Your task to perform on an android device: check data usage Image 0: 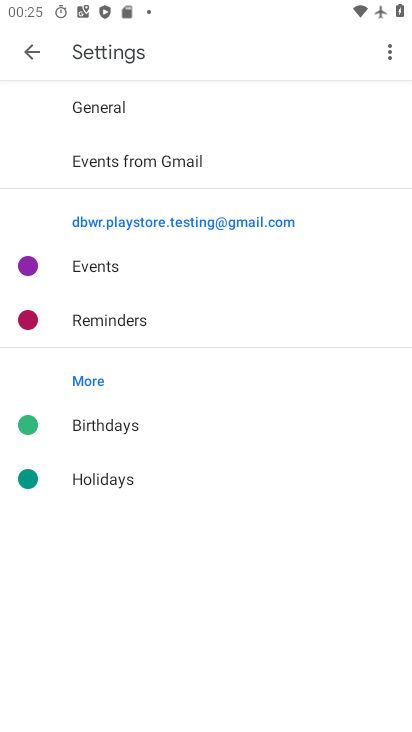
Step 0: press home button
Your task to perform on an android device: check data usage Image 1: 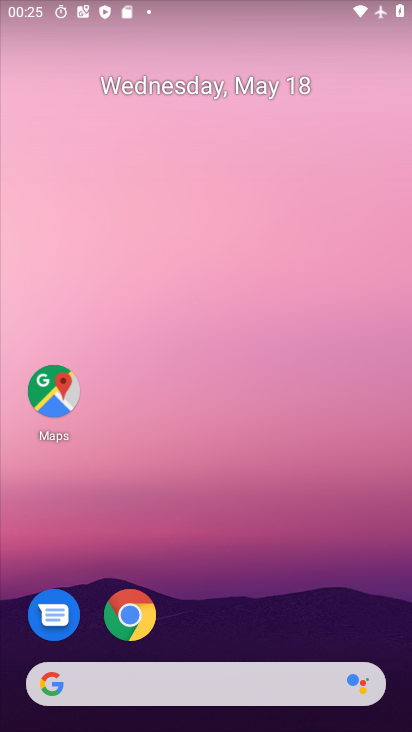
Step 1: drag from (217, 582) to (202, 69)
Your task to perform on an android device: check data usage Image 2: 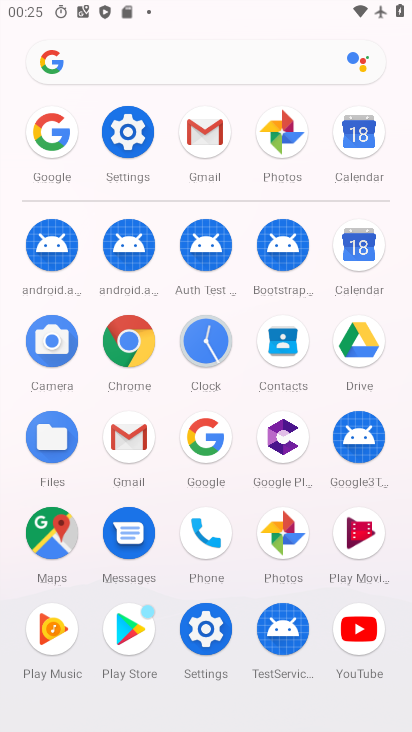
Step 2: click (136, 132)
Your task to perform on an android device: check data usage Image 3: 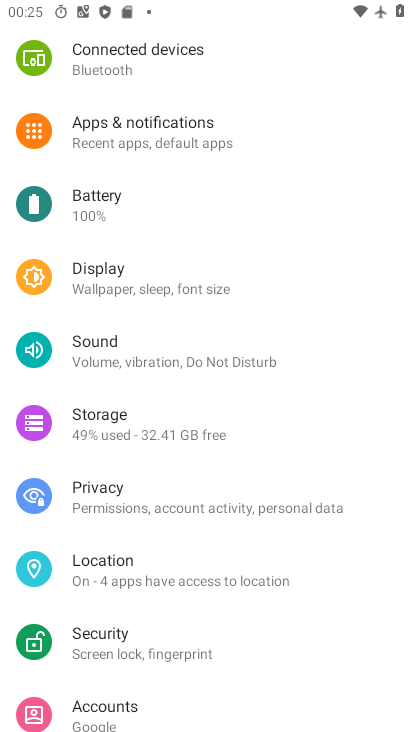
Step 3: drag from (158, 327) to (142, 518)
Your task to perform on an android device: check data usage Image 4: 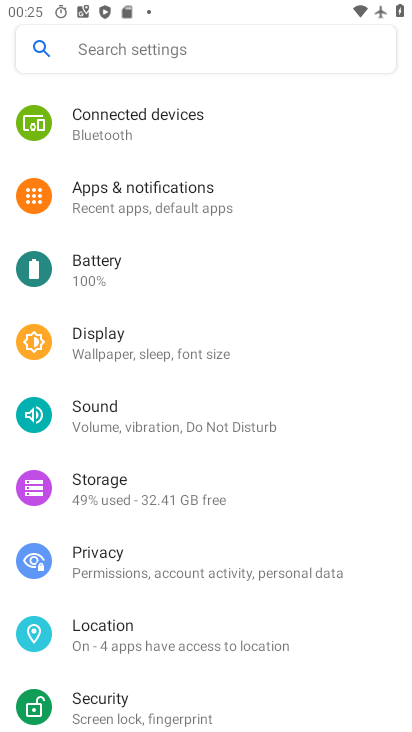
Step 4: drag from (227, 215) to (232, 578)
Your task to perform on an android device: check data usage Image 5: 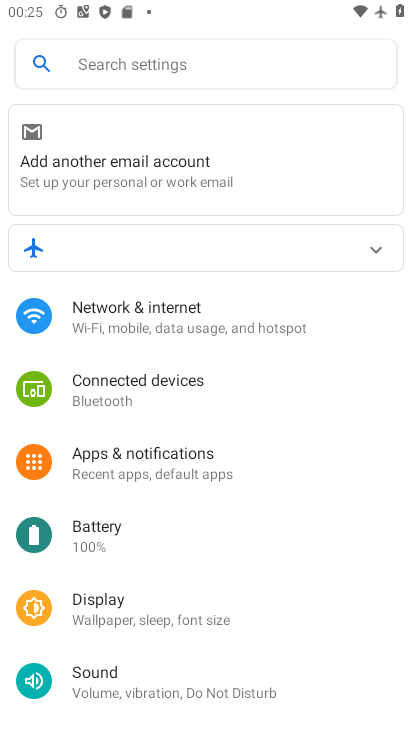
Step 5: click (185, 334)
Your task to perform on an android device: check data usage Image 6: 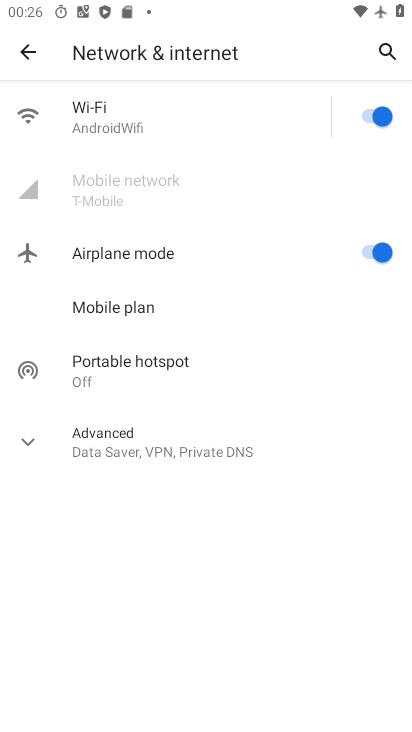
Step 6: click (176, 202)
Your task to perform on an android device: check data usage Image 7: 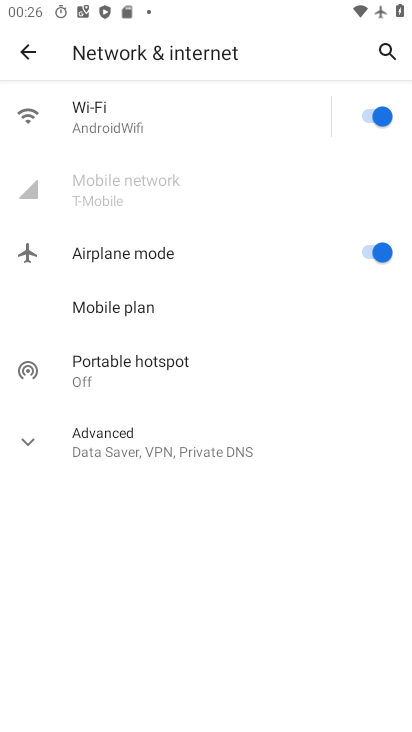
Step 7: task complete